Your task to perform on an android device: Go to CNN.com Image 0: 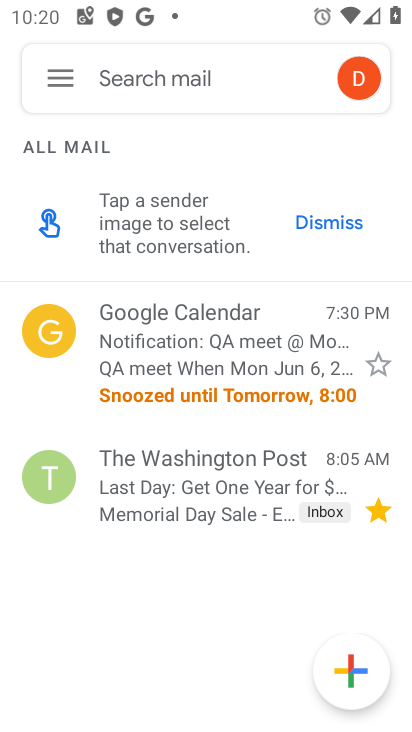
Step 0: press home button
Your task to perform on an android device: Go to CNN.com Image 1: 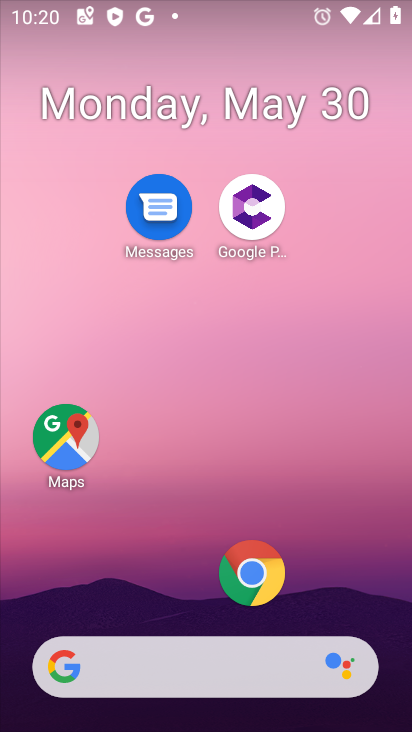
Step 1: click (281, 575)
Your task to perform on an android device: Go to CNN.com Image 2: 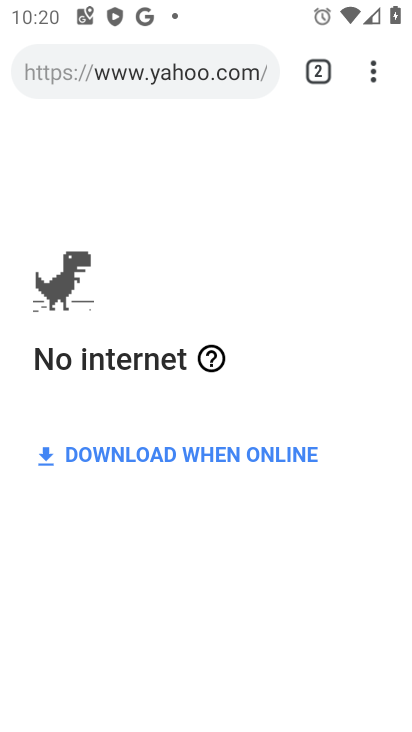
Step 2: click (211, 71)
Your task to perform on an android device: Go to CNN.com Image 3: 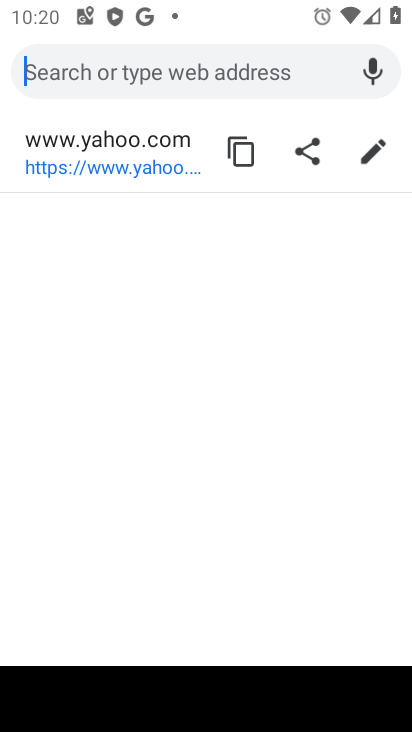
Step 3: type "cnn"
Your task to perform on an android device: Go to CNN.com Image 4: 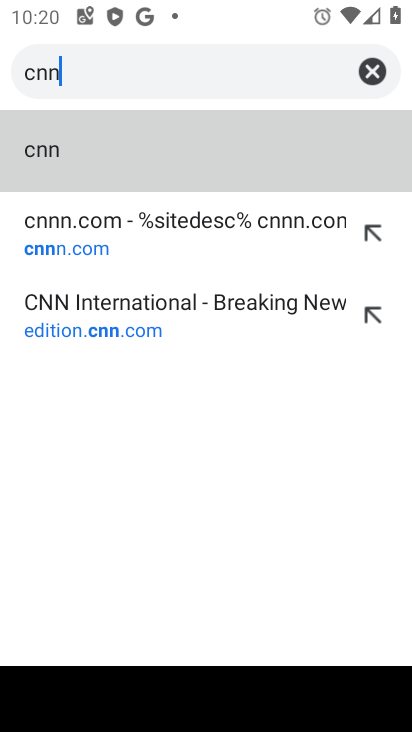
Step 4: click (122, 255)
Your task to perform on an android device: Go to CNN.com Image 5: 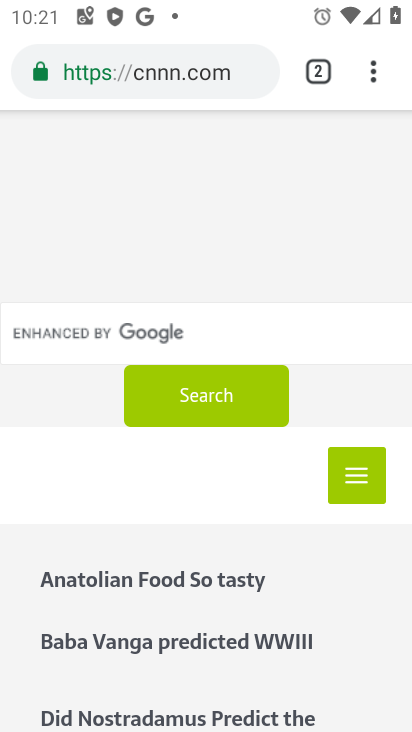
Step 5: task complete